Your task to perform on an android device: Open sound settings Image 0: 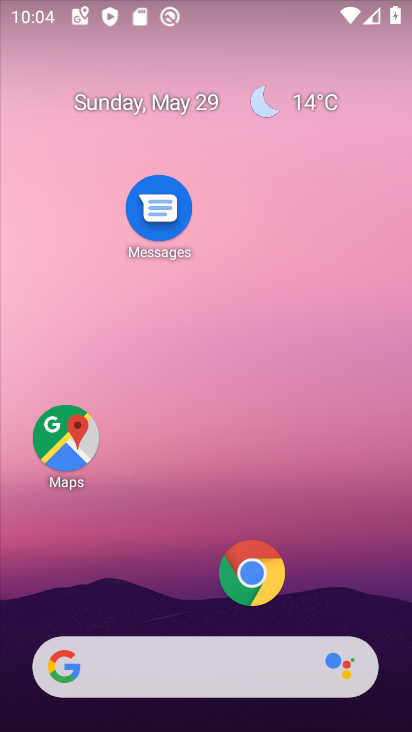
Step 0: drag from (181, 619) to (262, 19)
Your task to perform on an android device: Open sound settings Image 1: 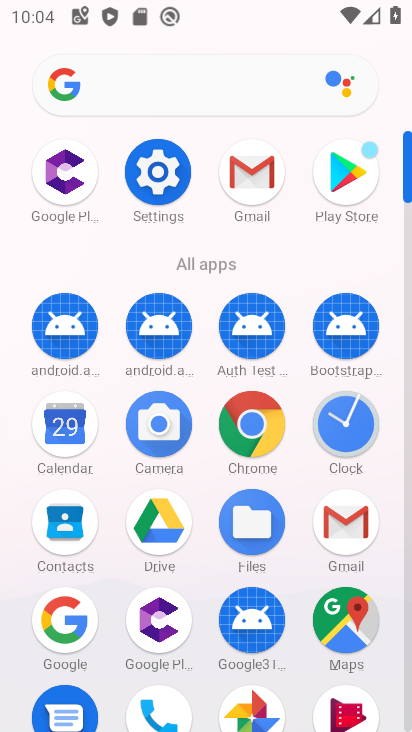
Step 1: click (167, 168)
Your task to perform on an android device: Open sound settings Image 2: 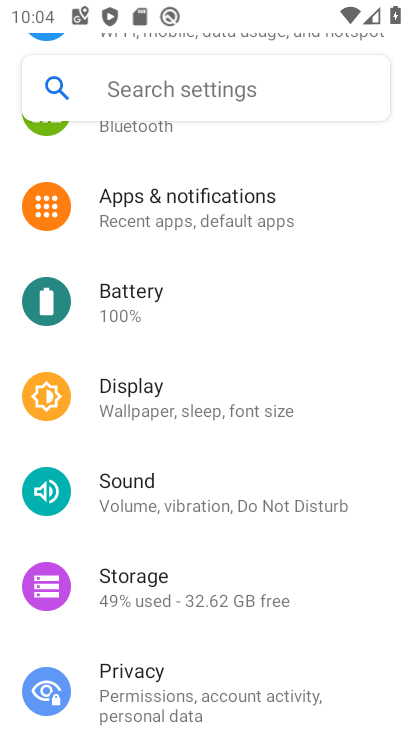
Step 2: click (132, 500)
Your task to perform on an android device: Open sound settings Image 3: 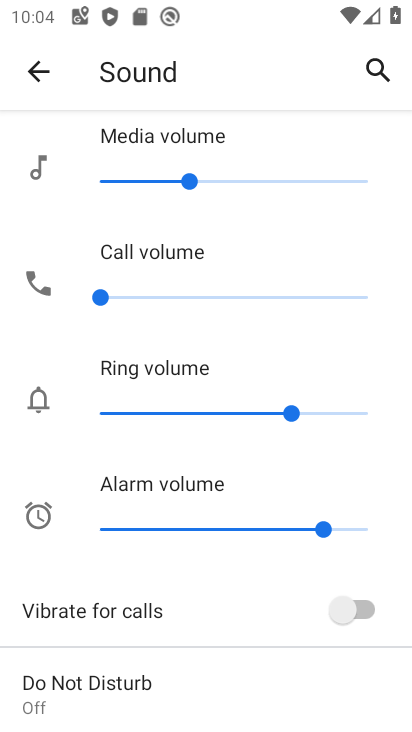
Step 3: task complete